Your task to perform on an android device: change keyboard looks Image 0: 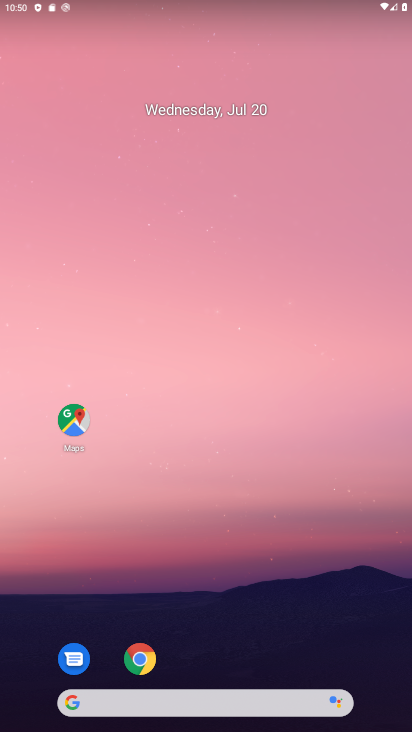
Step 0: drag from (242, 668) to (254, 107)
Your task to perform on an android device: change keyboard looks Image 1: 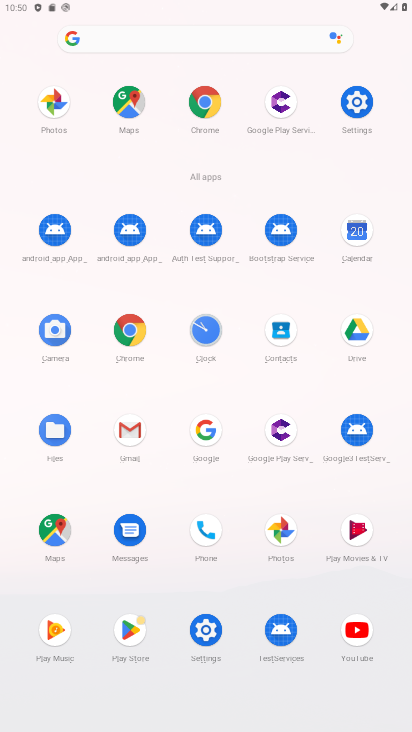
Step 1: click (357, 116)
Your task to perform on an android device: change keyboard looks Image 2: 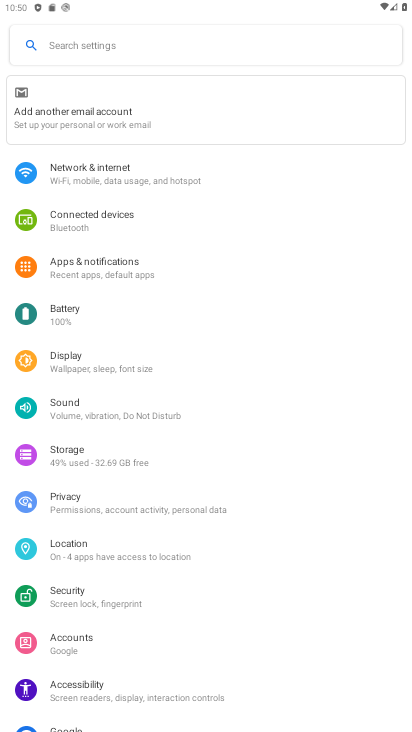
Step 2: drag from (88, 617) to (106, 230)
Your task to perform on an android device: change keyboard looks Image 3: 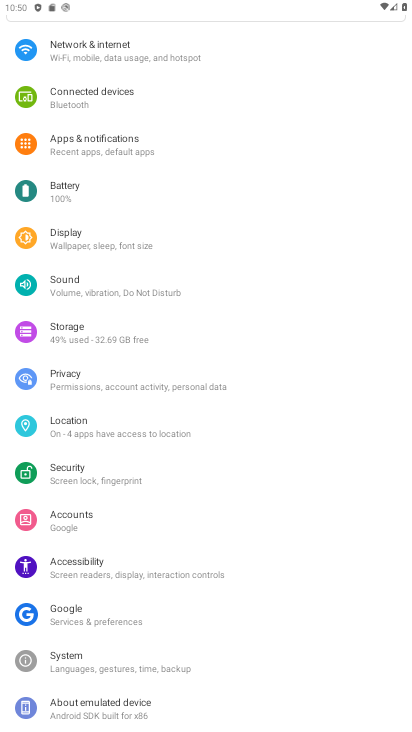
Step 3: click (91, 656)
Your task to perform on an android device: change keyboard looks Image 4: 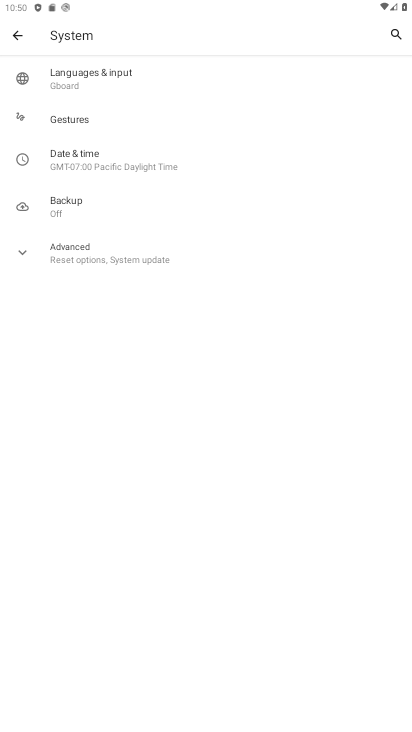
Step 4: click (103, 86)
Your task to perform on an android device: change keyboard looks Image 5: 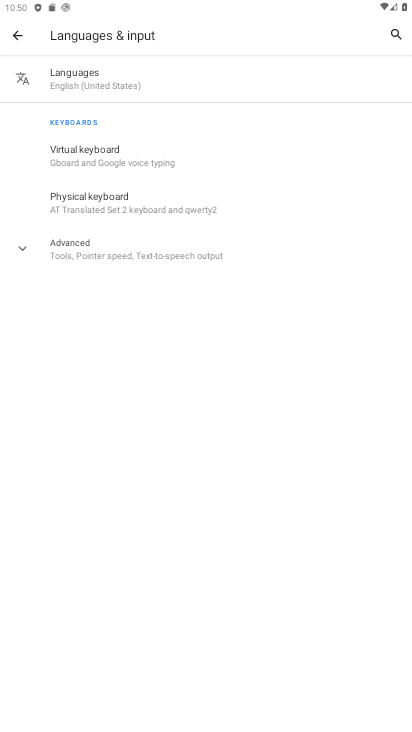
Step 5: click (109, 164)
Your task to perform on an android device: change keyboard looks Image 6: 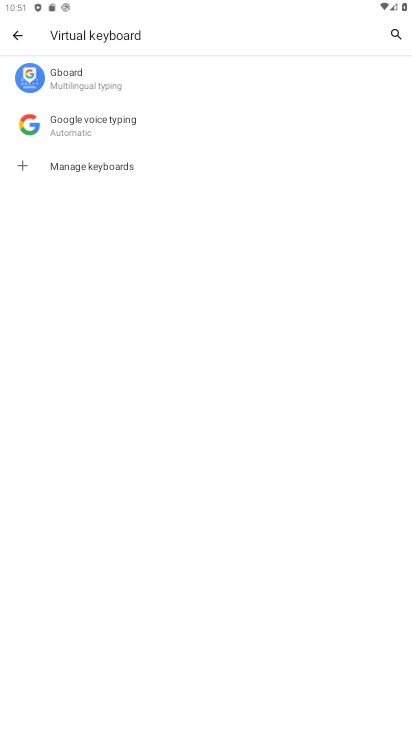
Step 6: click (102, 82)
Your task to perform on an android device: change keyboard looks Image 7: 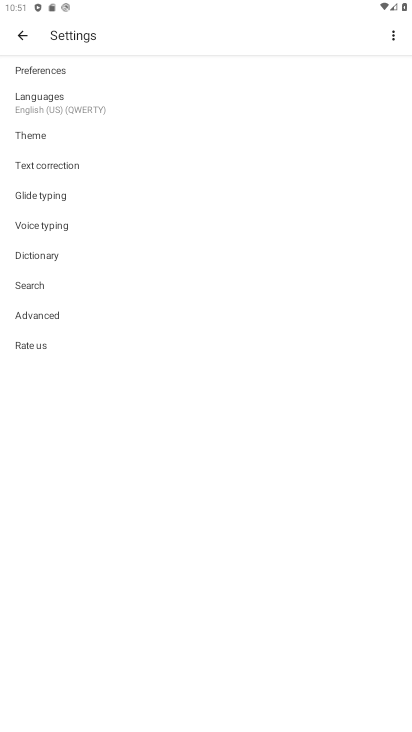
Step 7: click (41, 136)
Your task to perform on an android device: change keyboard looks Image 8: 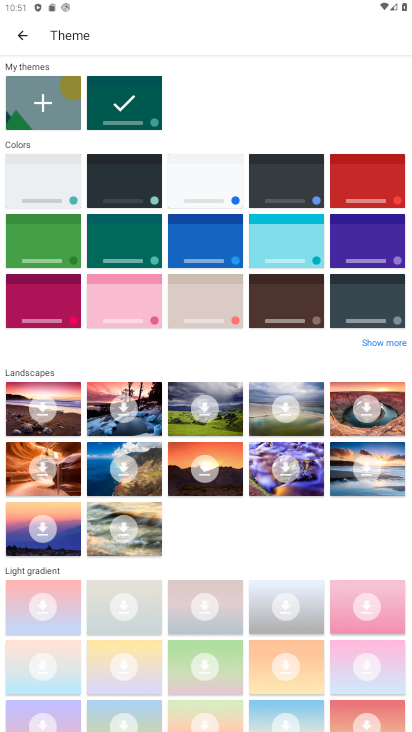
Step 8: click (130, 174)
Your task to perform on an android device: change keyboard looks Image 9: 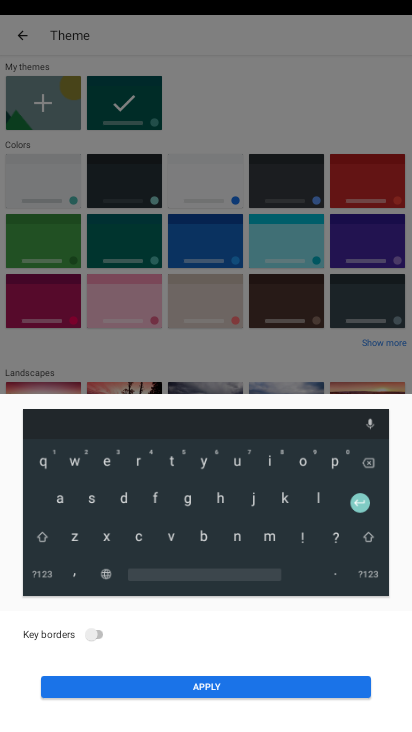
Step 9: click (241, 693)
Your task to perform on an android device: change keyboard looks Image 10: 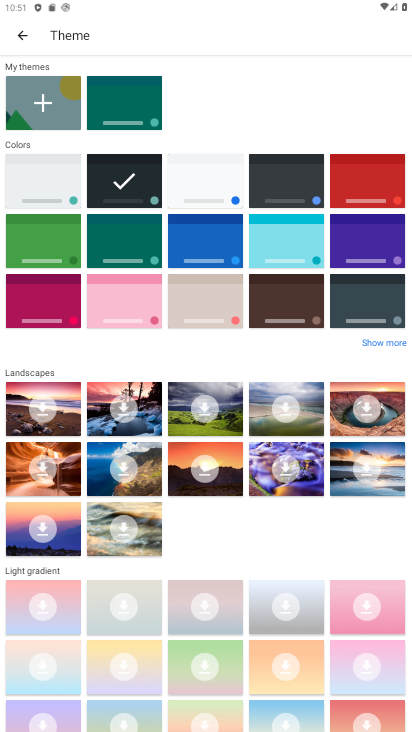
Step 10: task complete